Your task to perform on an android device: all mails in gmail Image 0: 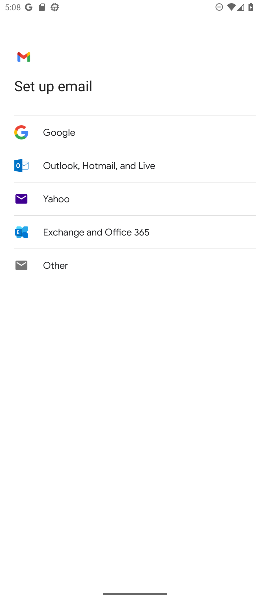
Step 0: press home button
Your task to perform on an android device: all mails in gmail Image 1: 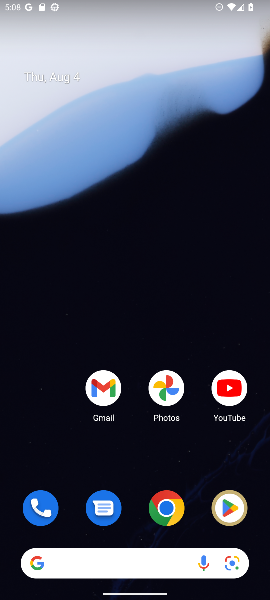
Step 1: click (265, 175)
Your task to perform on an android device: all mails in gmail Image 2: 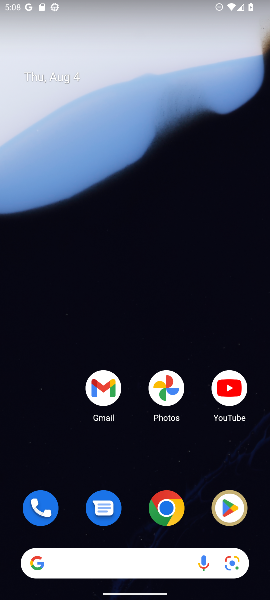
Step 2: drag from (215, 424) to (234, 123)
Your task to perform on an android device: all mails in gmail Image 3: 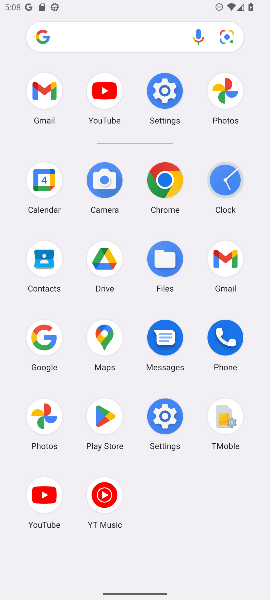
Step 3: click (216, 266)
Your task to perform on an android device: all mails in gmail Image 4: 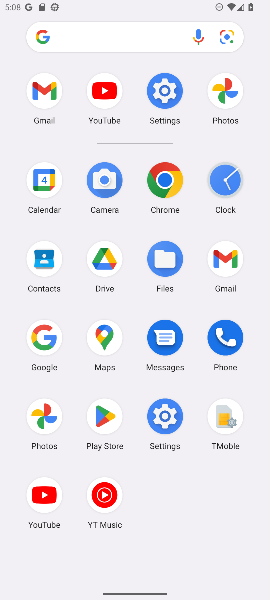
Step 4: click (216, 266)
Your task to perform on an android device: all mails in gmail Image 5: 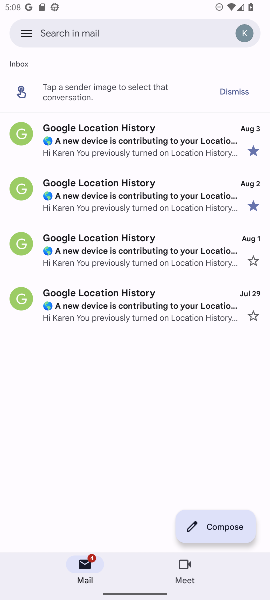
Step 5: drag from (121, 465) to (106, 283)
Your task to perform on an android device: all mails in gmail Image 6: 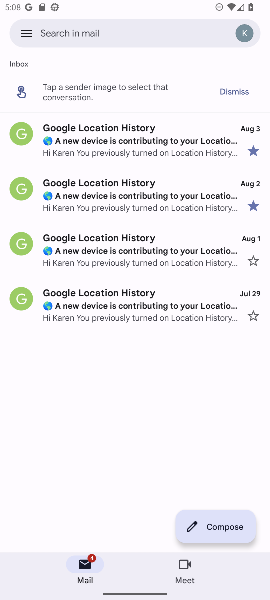
Step 6: click (21, 36)
Your task to perform on an android device: all mails in gmail Image 7: 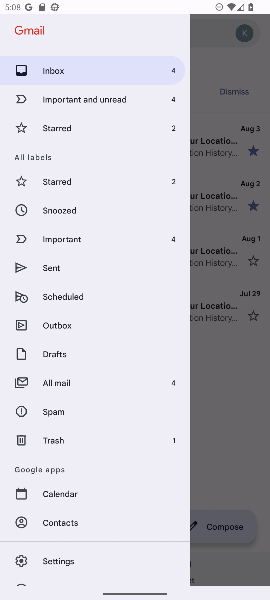
Step 7: click (61, 384)
Your task to perform on an android device: all mails in gmail Image 8: 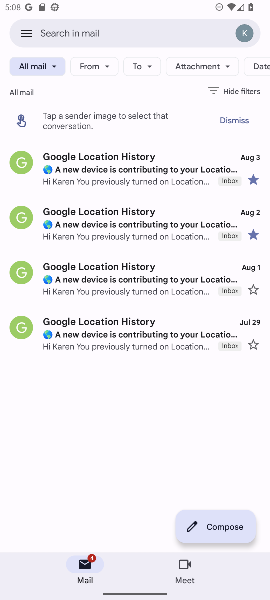
Step 8: task complete